Your task to perform on an android device: Open Chrome and go to the settings page Image 0: 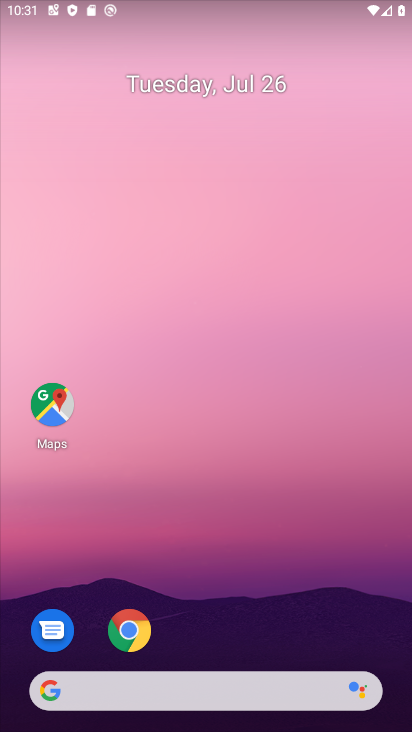
Step 0: click (123, 634)
Your task to perform on an android device: Open Chrome and go to the settings page Image 1: 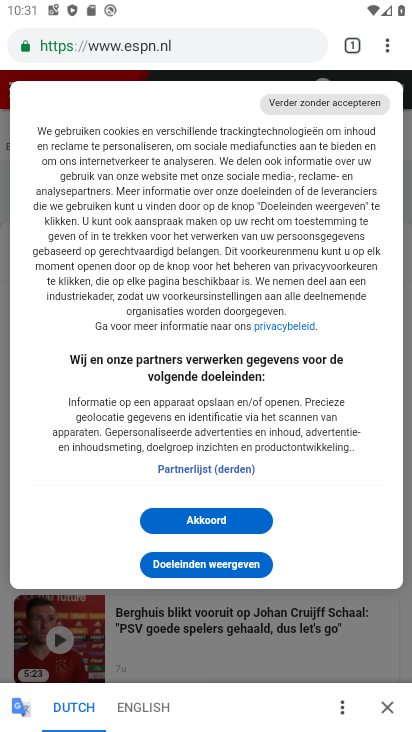
Step 1: click (391, 47)
Your task to perform on an android device: Open Chrome and go to the settings page Image 2: 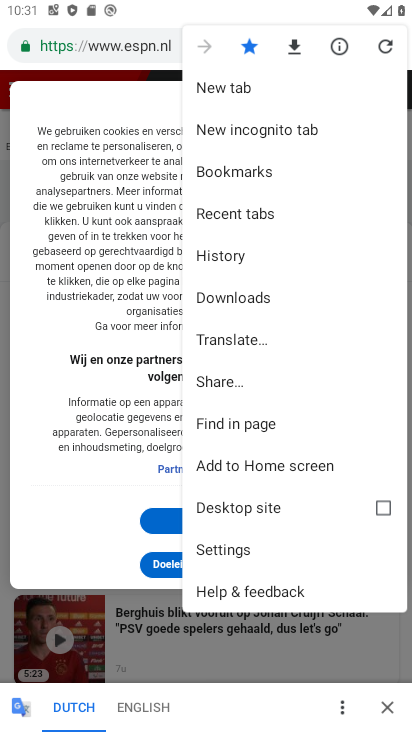
Step 2: click (213, 550)
Your task to perform on an android device: Open Chrome and go to the settings page Image 3: 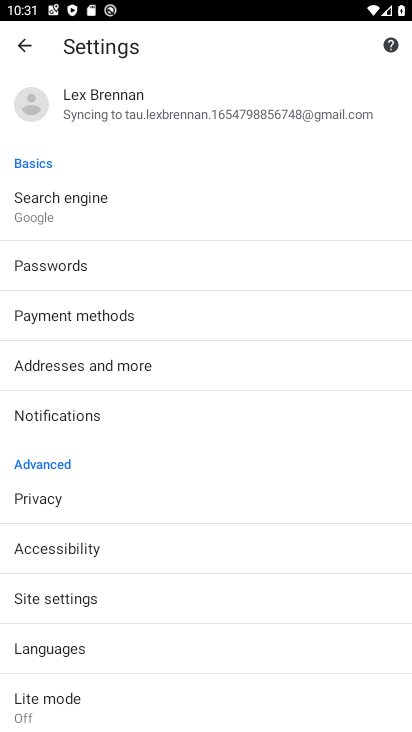
Step 3: task complete